Your task to perform on an android device: Search for apple airpods on ebay, select the first entry, add it to the cart, then select checkout. Image 0: 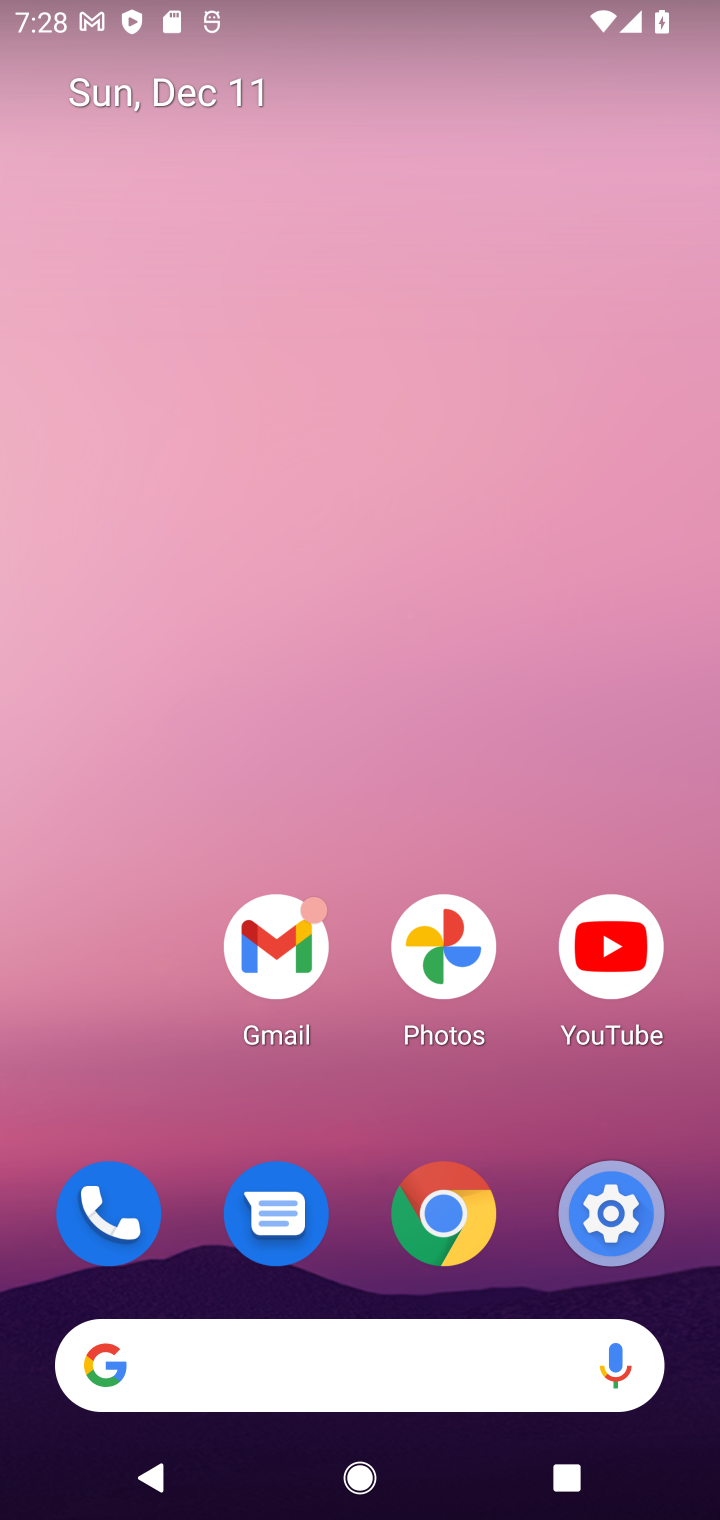
Step 0: click (429, 1388)
Your task to perform on an android device: Search for apple airpods on ebay, select the first entry, add it to the cart, then select checkout. Image 1: 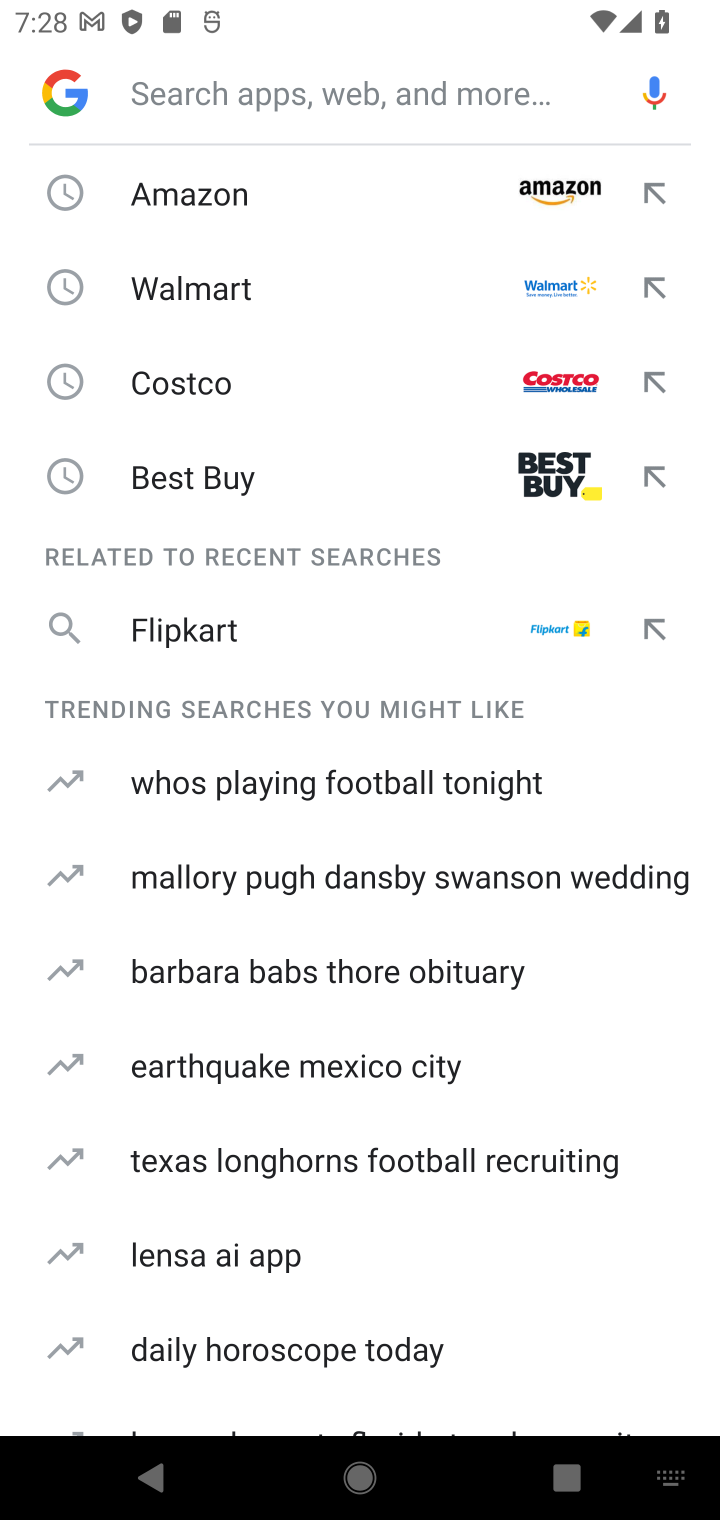
Step 1: type "apple airpods"
Your task to perform on an android device: Search for apple airpods on ebay, select the first entry, add it to the cart, then select checkout. Image 2: 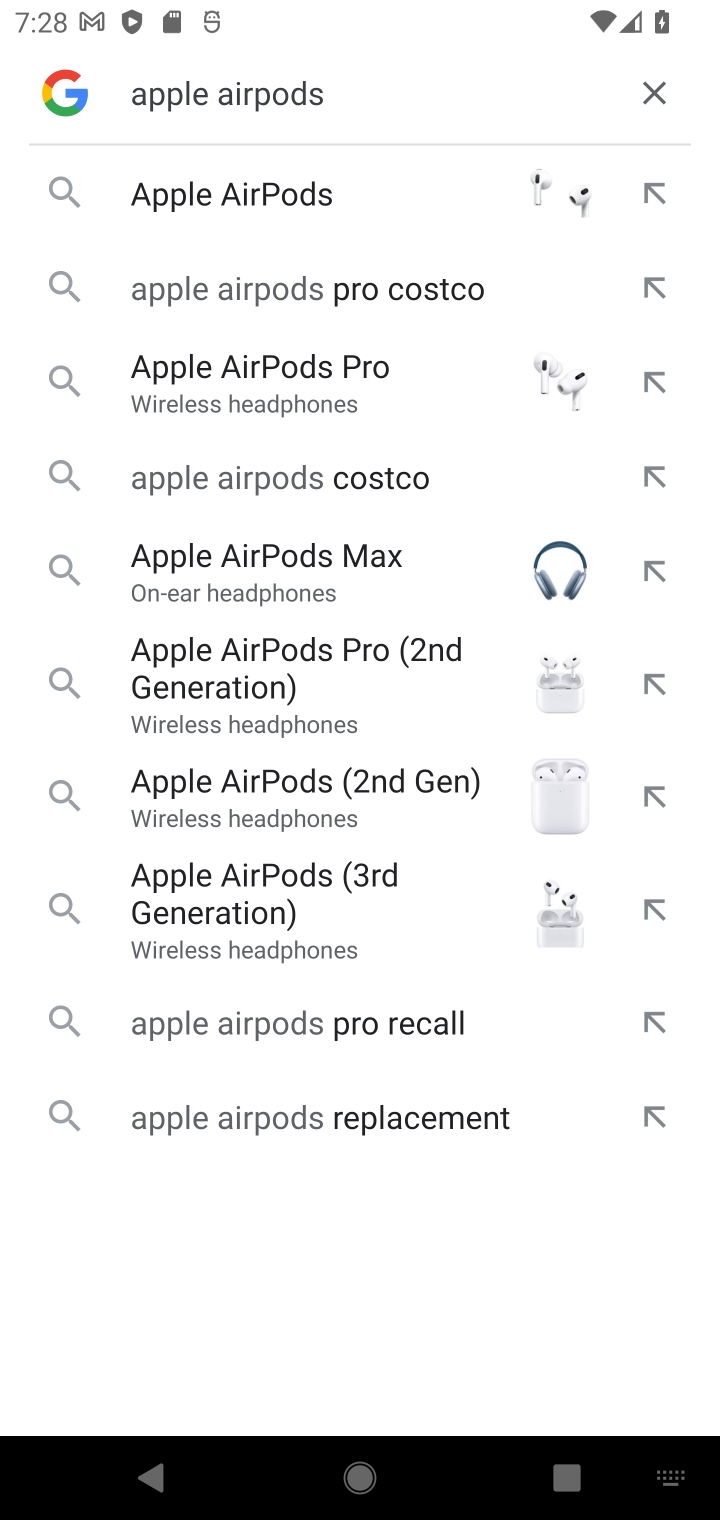
Step 2: click (153, 218)
Your task to perform on an android device: Search for apple airpods on ebay, select the first entry, add it to the cart, then select checkout. Image 3: 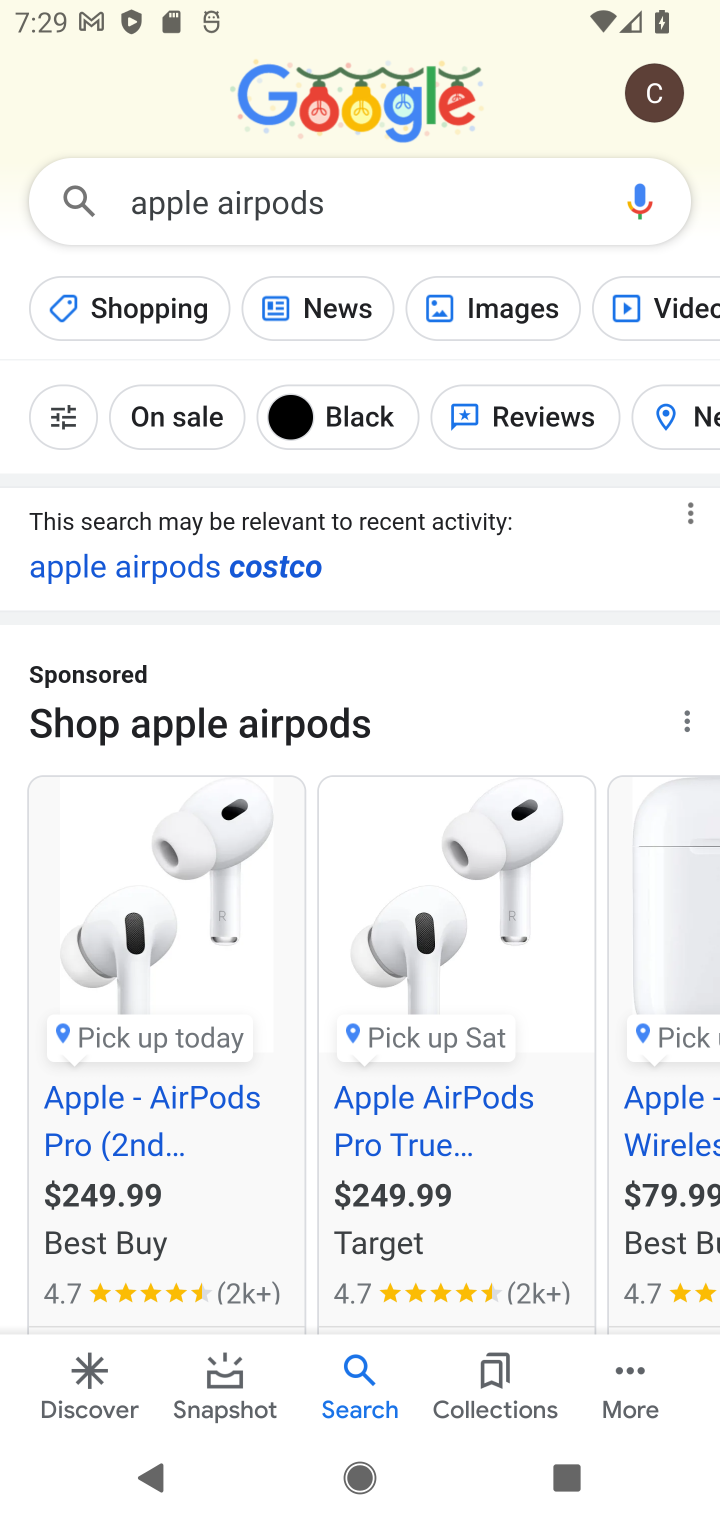
Step 3: task complete